Your task to perform on an android device: Search for Mexican restaurants on Maps Image 0: 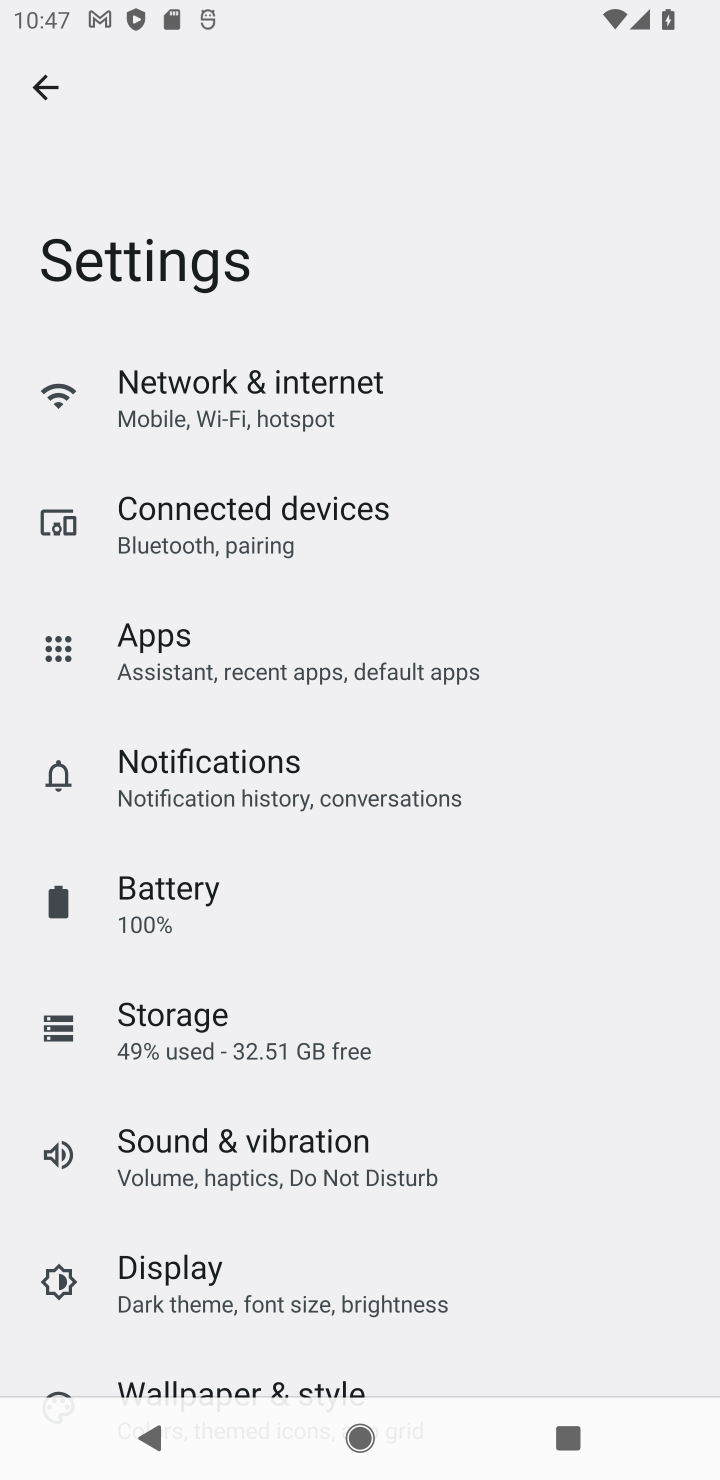
Step 0: press home button
Your task to perform on an android device: Search for Mexican restaurants on Maps Image 1: 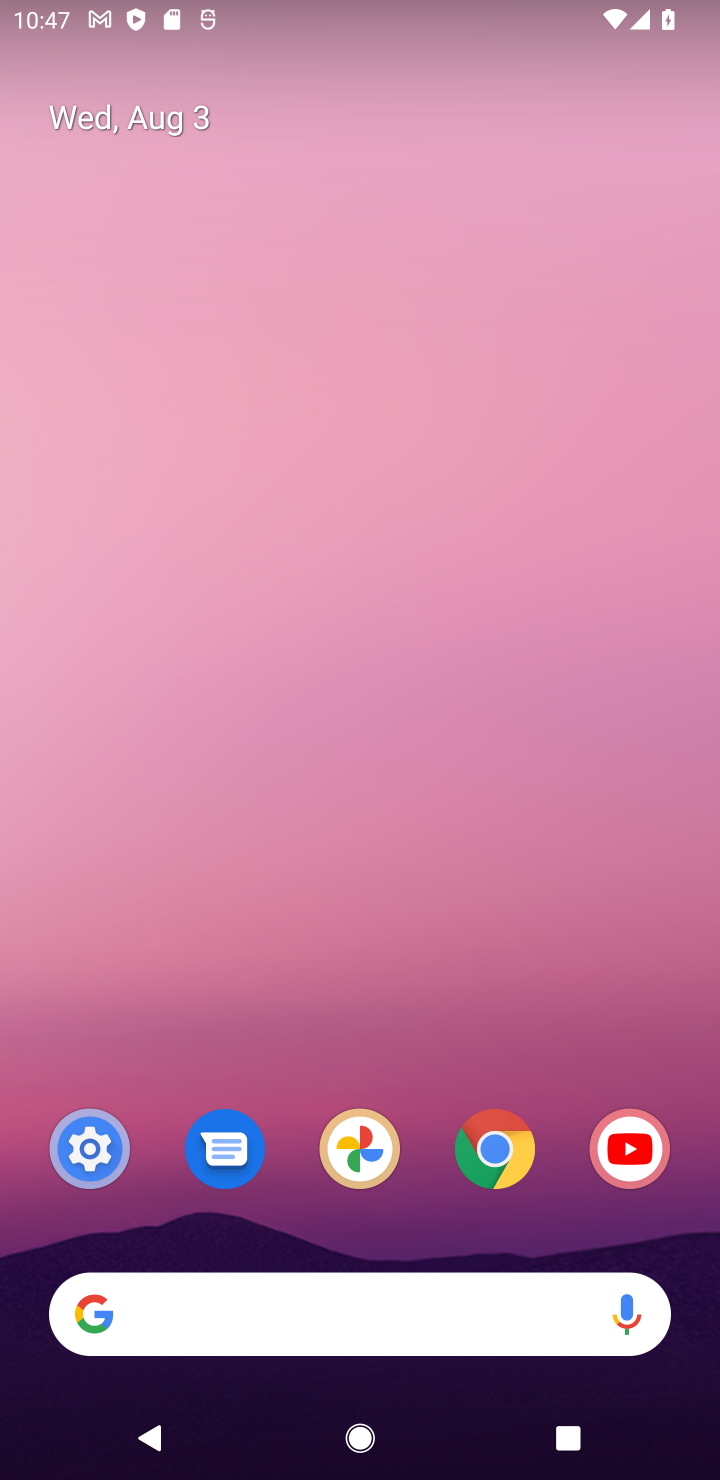
Step 1: drag from (433, 1080) to (423, 10)
Your task to perform on an android device: Search for Mexican restaurants on Maps Image 2: 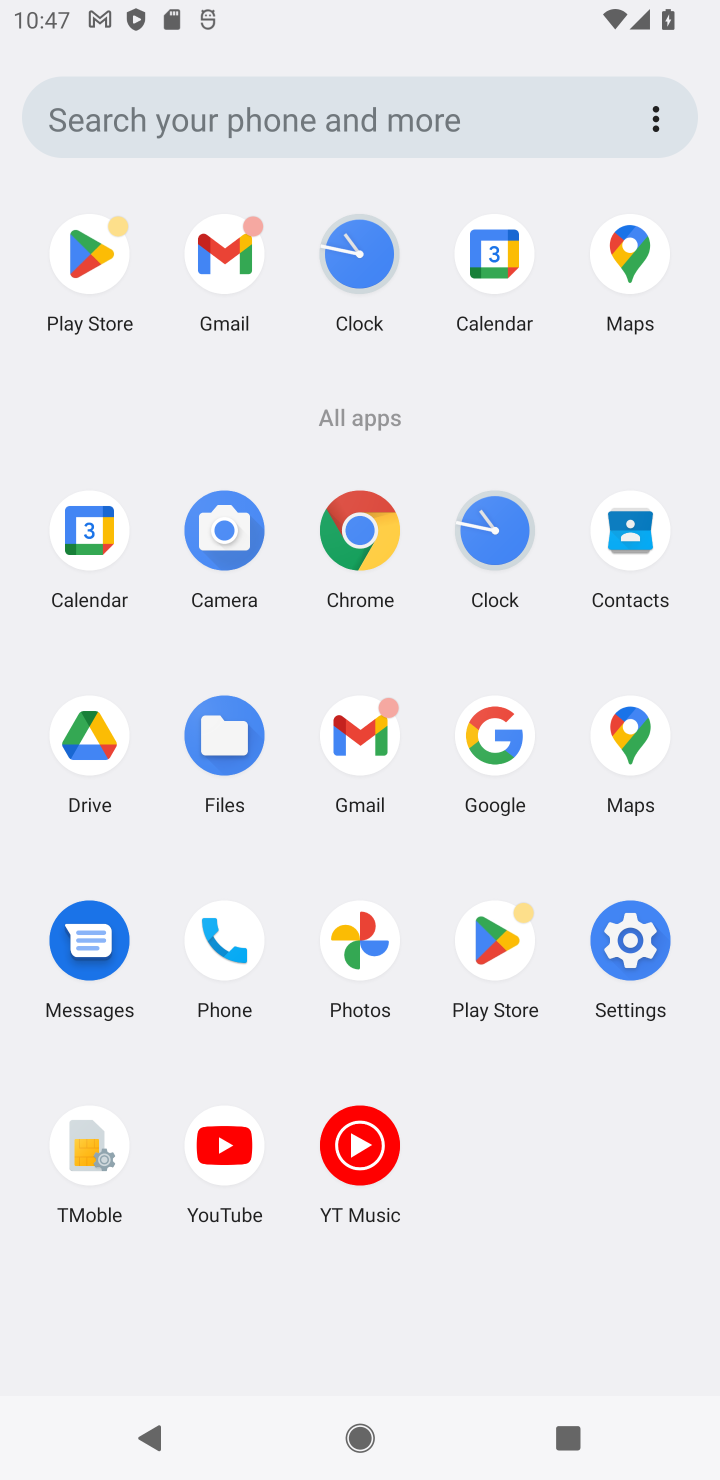
Step 2: click (616, 273)
Your task to perform on an android device: Search for Mexican restaurants on Maps Image 3: 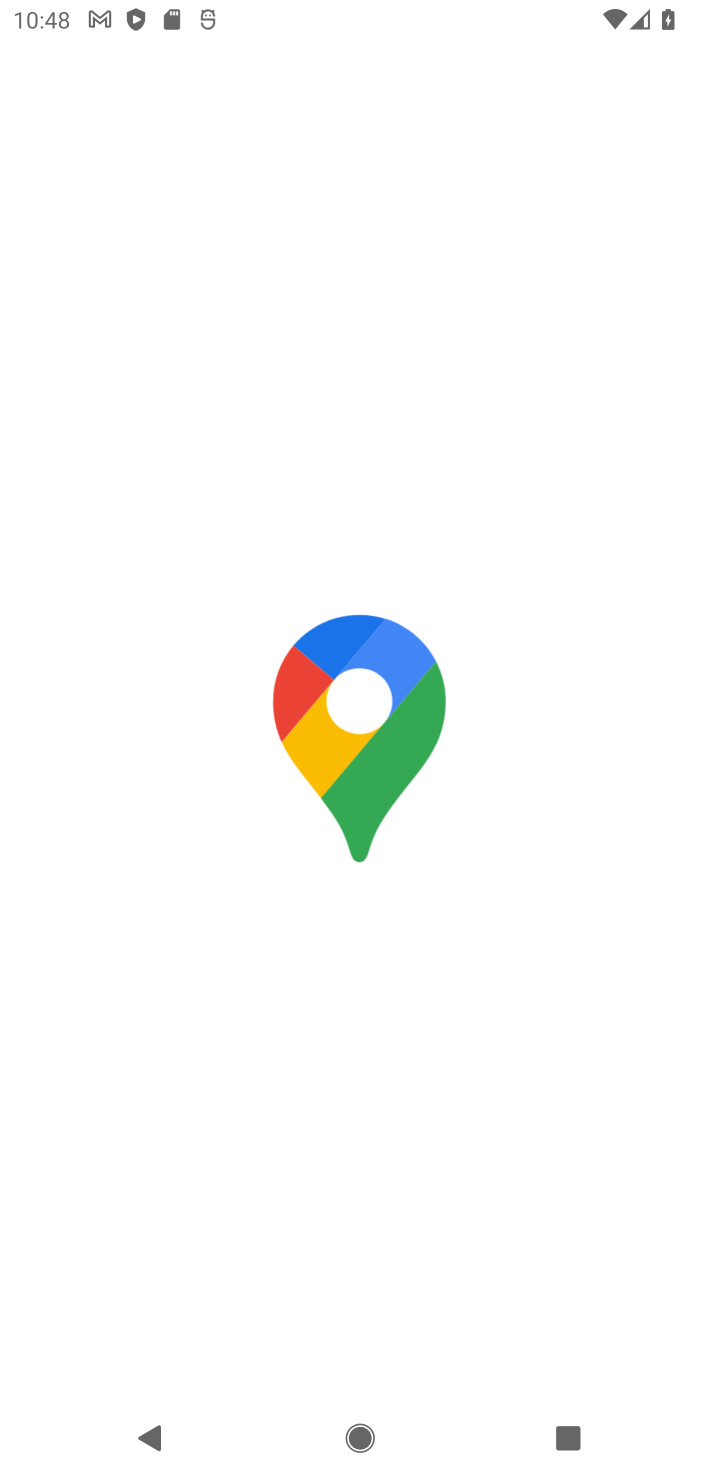
Step 3: task complete